Your task to perform on an android device: change alarm snooze length Image 0: 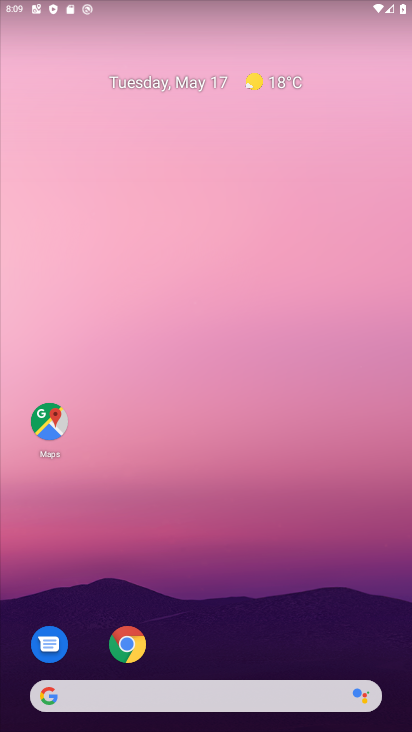
Step 0: drag from (224, 659) to (216, 83)
Your task to perform on an android device: change alarm snooze length Image 1: 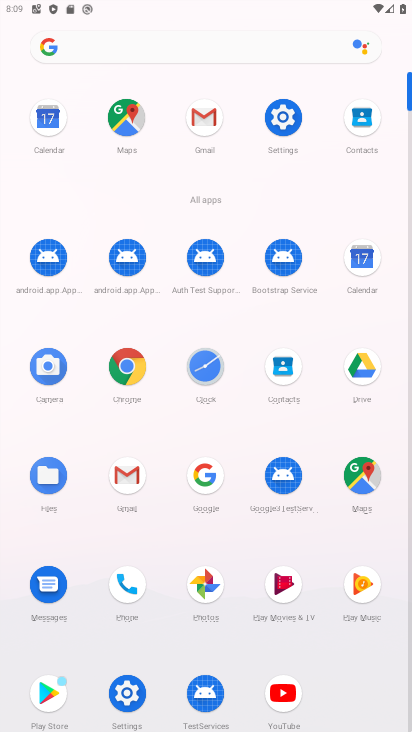
Step 1: click (202, 382)
Your task to perform on an android device: change alarm snooze length Image 2: 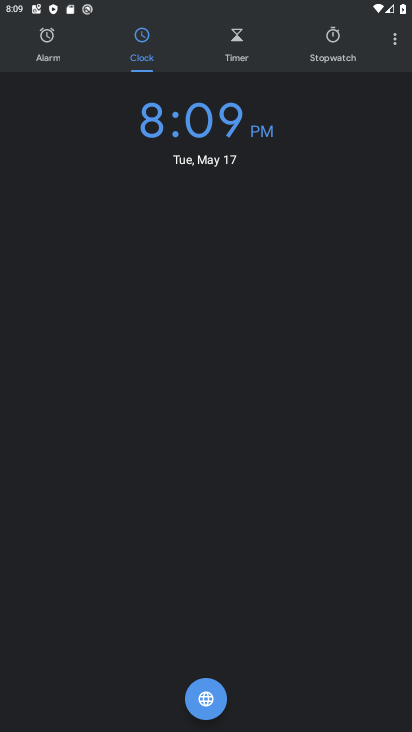
Step 2: click (391, 37)
Your task to perform on an android device: change alarm snooze length Image 3: 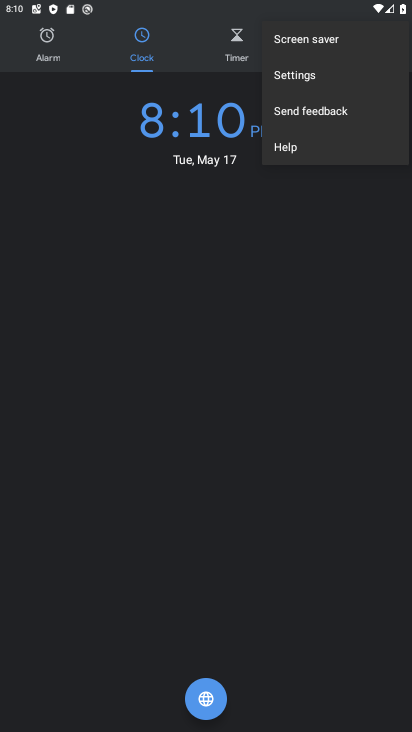
Step 3: click (328, 71)
Your task to perform on an android device: change alarm snooze length Image 4: 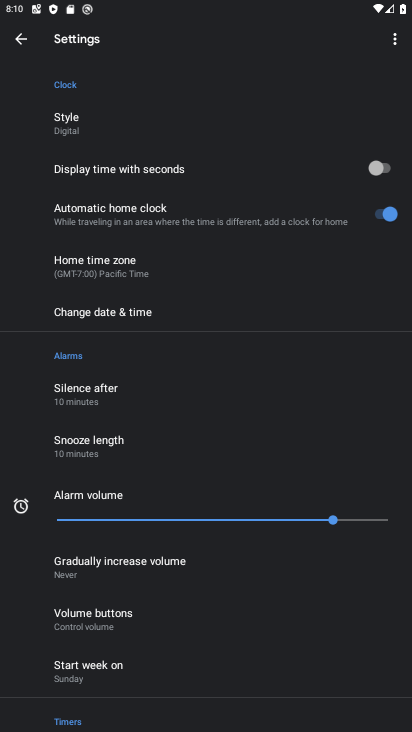
Step 4: click (71, 448)
Your task to perform on an android device: change alarm snooze length Image 5: 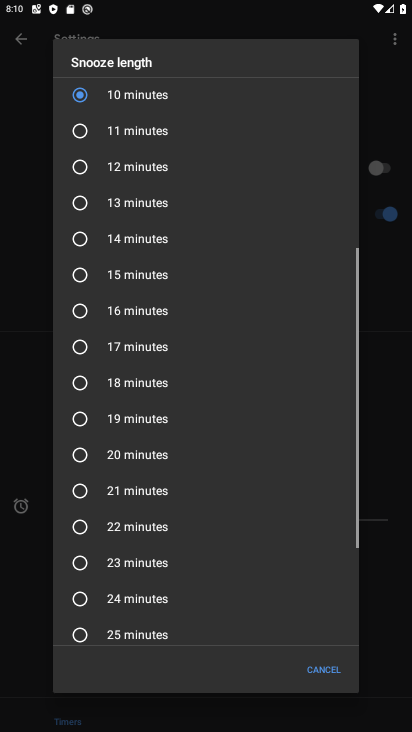
Step 5: click (80, 127)
Your task to perform on an android device: change alarm snooze length Image 6: 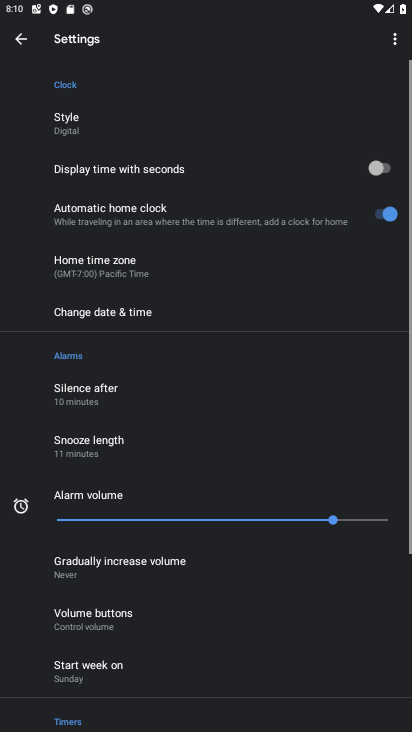
Step 6: task complete